Your task to perform on an android device: Open eBay Image 0: 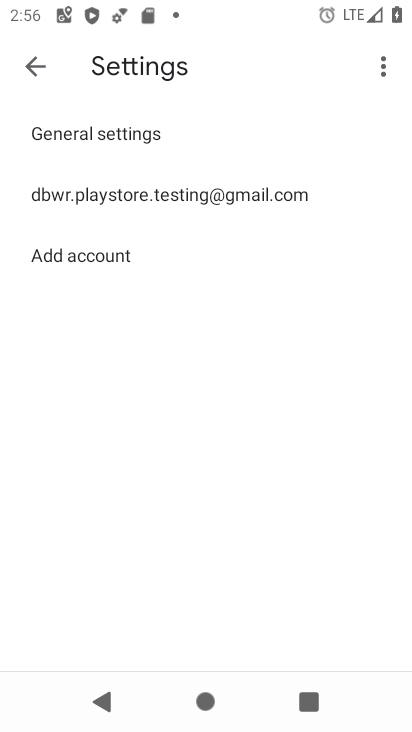
Step 0: press home button
Your task to perform on an android device: Open eBay Image 1: 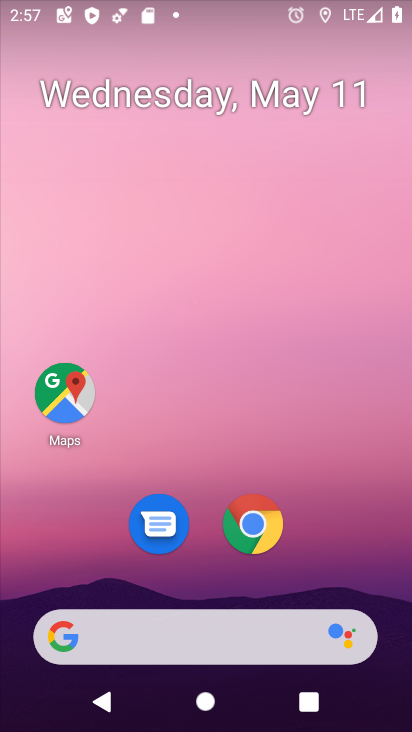
Step 1: click (274, 646)
Your task to perform on an android device: Open eBay Image 2: 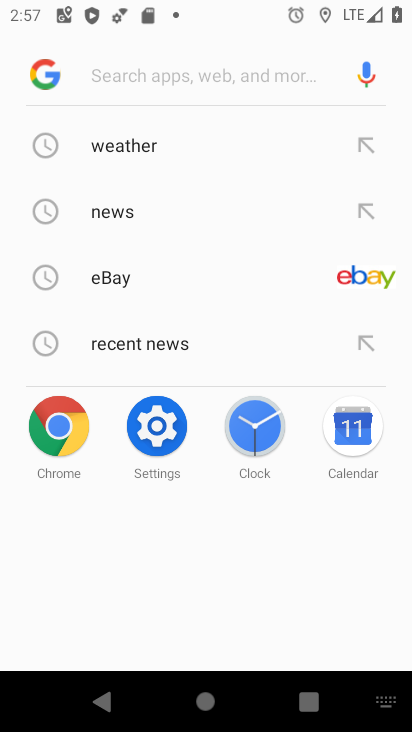
Step 2: click (98, 264)
Your task to perform on an android device: Open eBay Image 3: 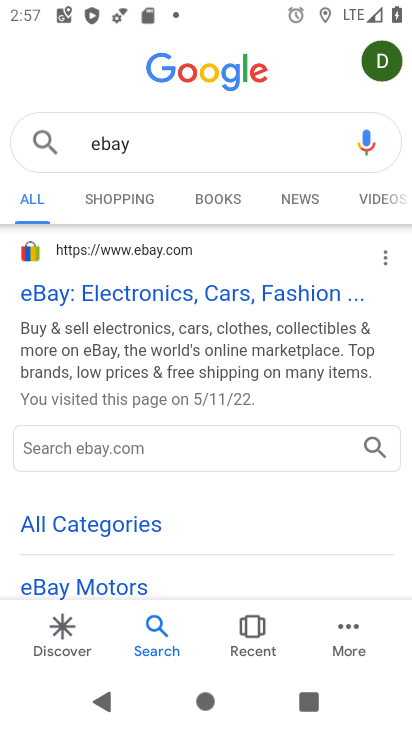
Step 3: click (106, 286)
Your task to perform on an android device: Open eBay Image 4: 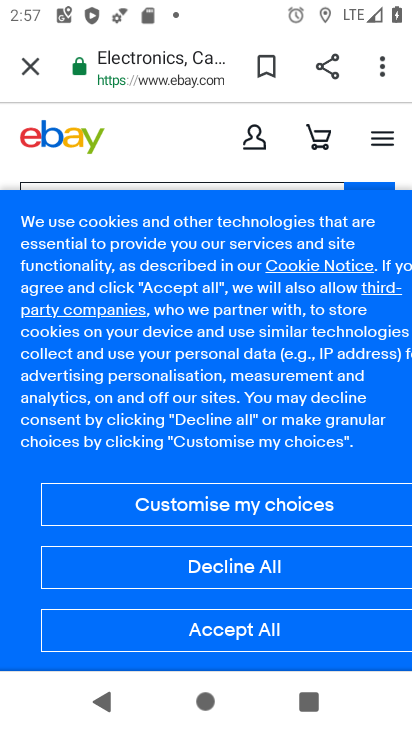
Step 4: task complete